Your task to perform on an android device: see creations saved in the google photos Image 0: 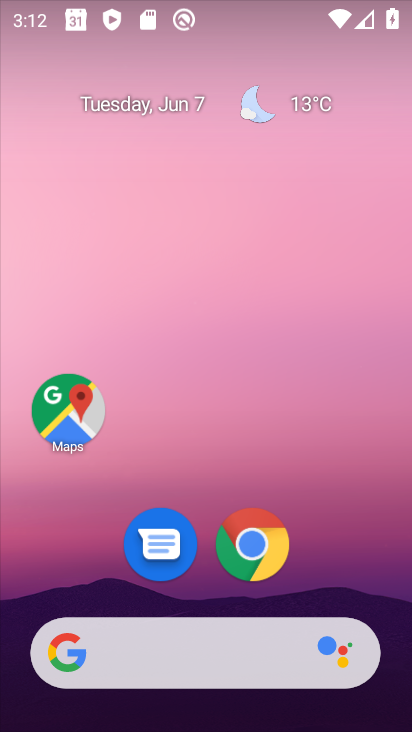
Step 0: press home button
Your task to perform on an android device: see creations saved in the google photos Image 1: 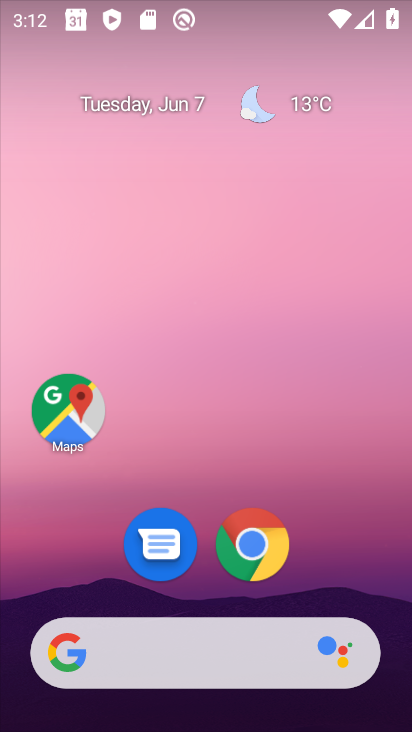
Step 1: drag from (211, 592) to (207, 86)
Your task to perform on an android device: see creations saved in the google photos Image 2: 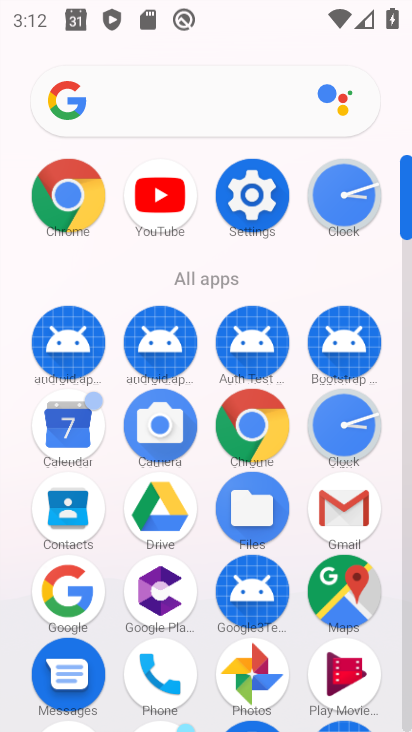
Step 2: click (248, 667)
Your task to perform on an android device: see creations saved in the google photos Image 3: 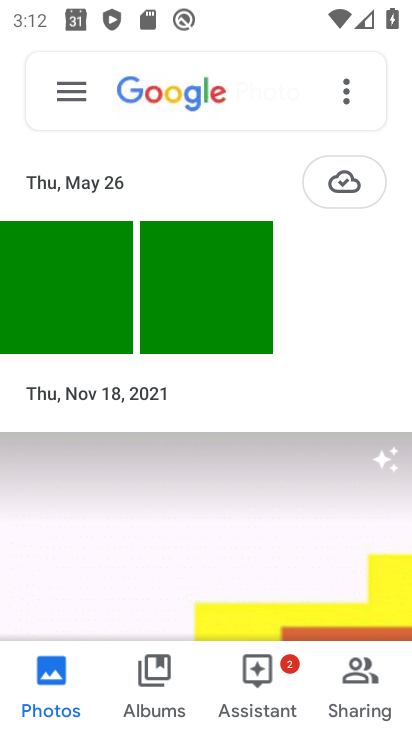
Step 3: click (166, 86)
Your task to perform on an android device: see creations saved in the google photos Image 4: 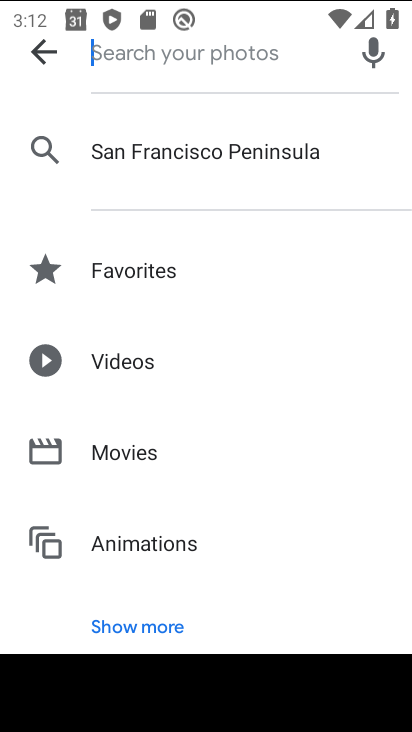
Step 4: click (146, 620)
Your task to perform on an android device: see creations saved in the google photos Image 5: 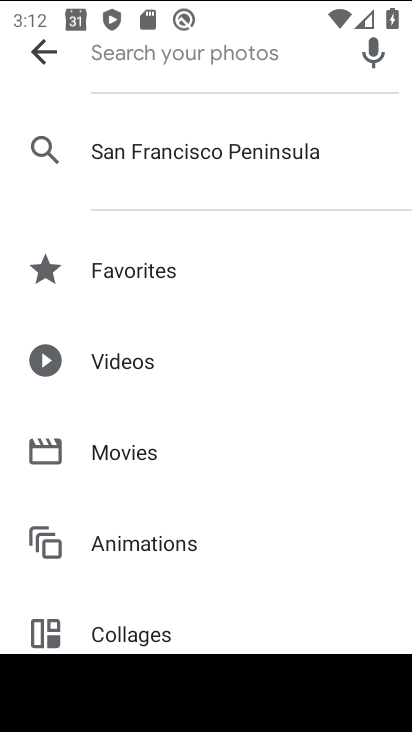
Step 5: drag from (167, 611) to (222, 58)
Your task to perform on an android device: see creations saved in the google photos Image 6: 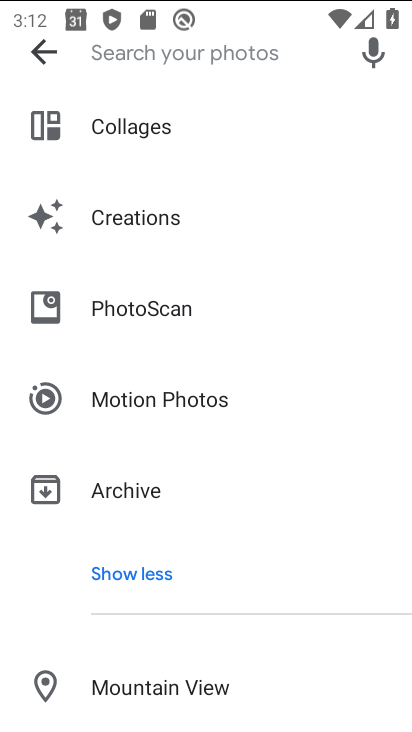
Step 6: drag from (212, 653) to (235, 217)
Your task to perform on an android device: see creations saved in the google photos Image 7: 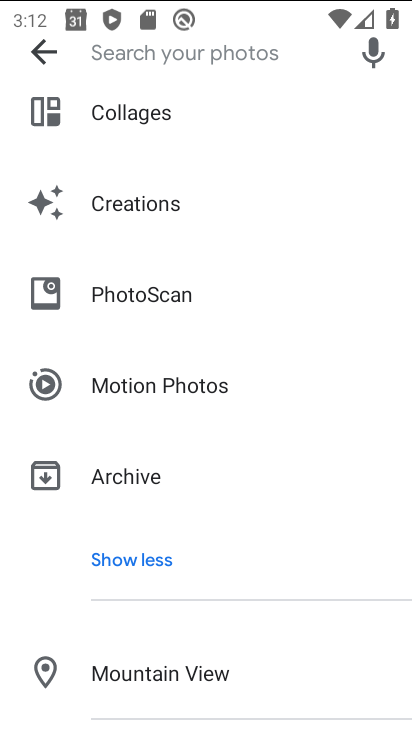
Step 7: click (168, 286)
Your task to perform on an android device: see creations saved in the google photos Image 8: 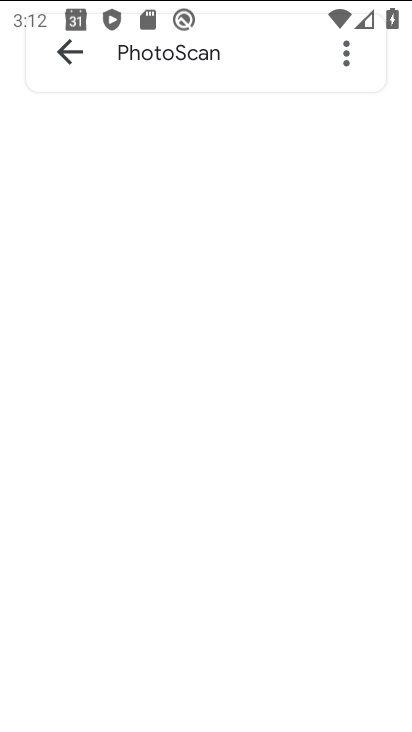
Step 8: click (139, 193)
Your task to perform on an android device: see creations saved in the google photos Image 9: 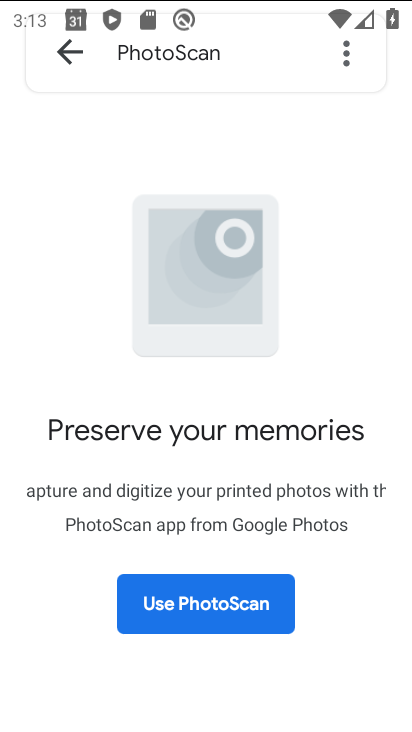
Step 9: click (70, 38)
Your task to perform on an android device: see creations saved in the google photos Image 10: 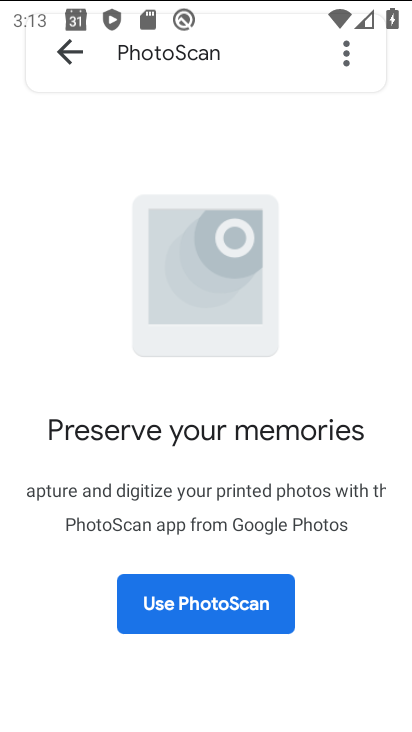
Step 10: click (72, 55)
Your task to perform on an android device: see creations saved in the google photos Image 11: 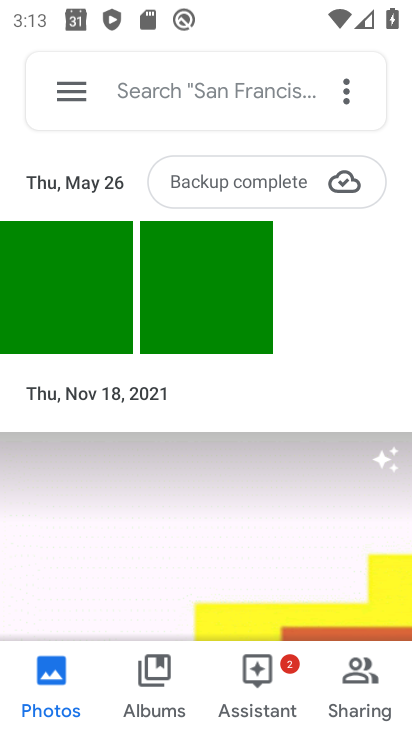
Step 11: click (164, 90)
Your task to perform on an android device: see creations saved in the google photos Image 12: 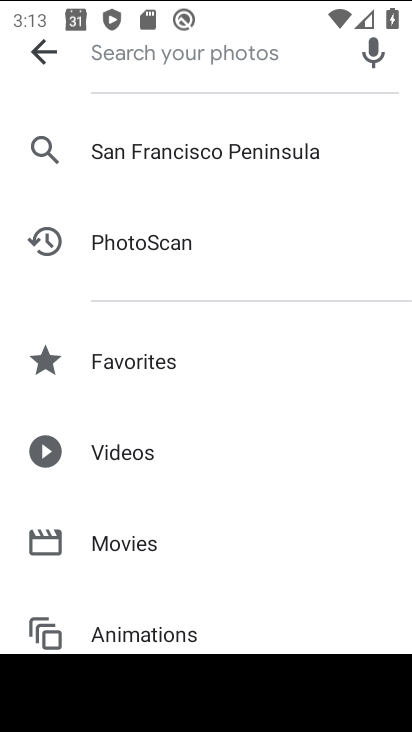
Step 12: drag from (148, 586) to (186, 222)
Your task to perform on an android device: see creations saved in the google photos Image 13: 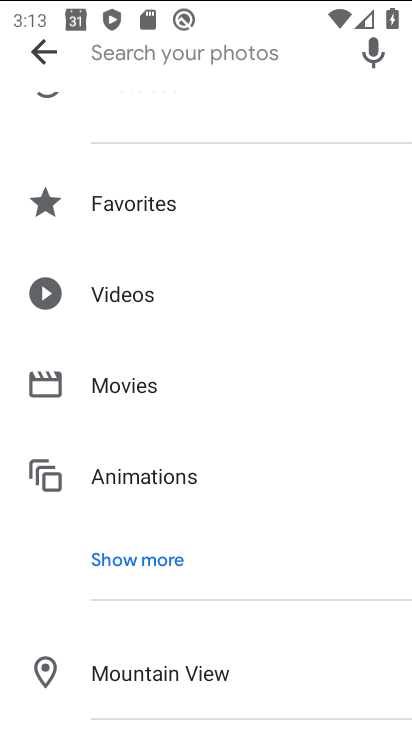
Step 13: click (149, 556)
Your task to perform on an android device: see creations saved in the google photos Image 14: 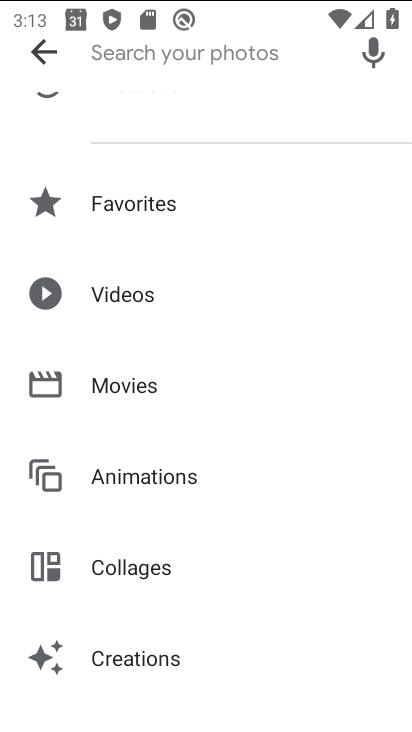
Step 14: click (163, 655)
Your task to perform on an android device: see creations saved in the google photos Image 15: 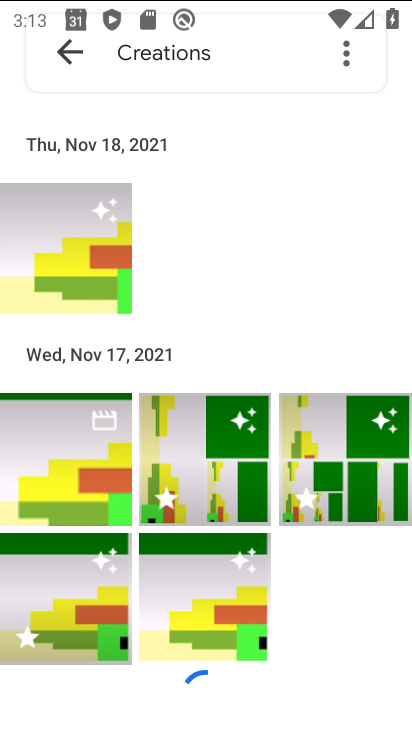
Step 15: task complete